Your task to perform on an android device: View the shopping cart on walmart.com. Search for "duracell triple a" on walmart.com, select the first entry, and add it to the cart. Image 0: 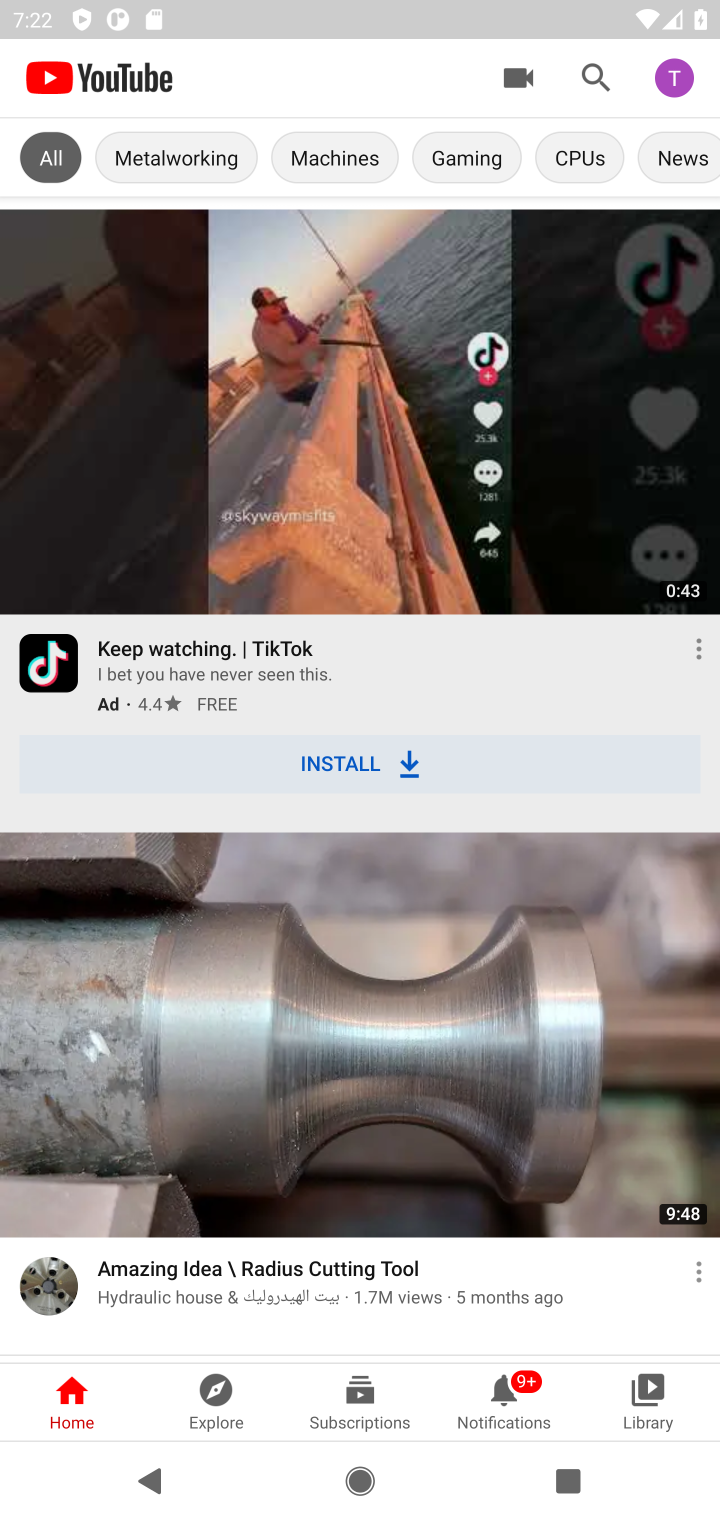
Step 0: press home button
Your task to perform on an android device: View the shopping cart on walmart.com. Search for "duracell triple a" on walmart.com, select the first entry, and add it to the cart. Image 1: 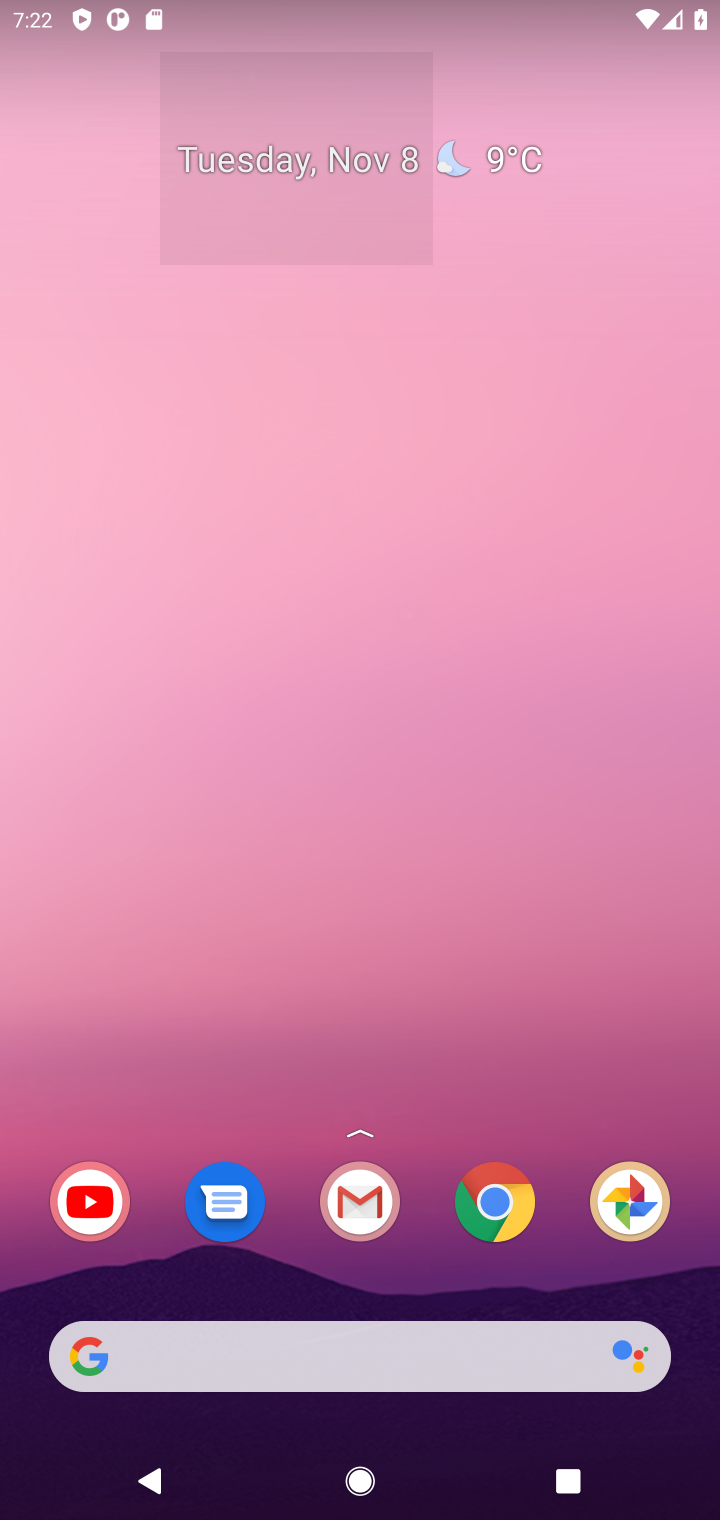
Step 1: click (249, 1352)
Your task to perform on an android device: View the shopping cart on walmart.com. Search for "duracell triple a" on walmart.com, select the first entry, and add it to the cart. Image 2: 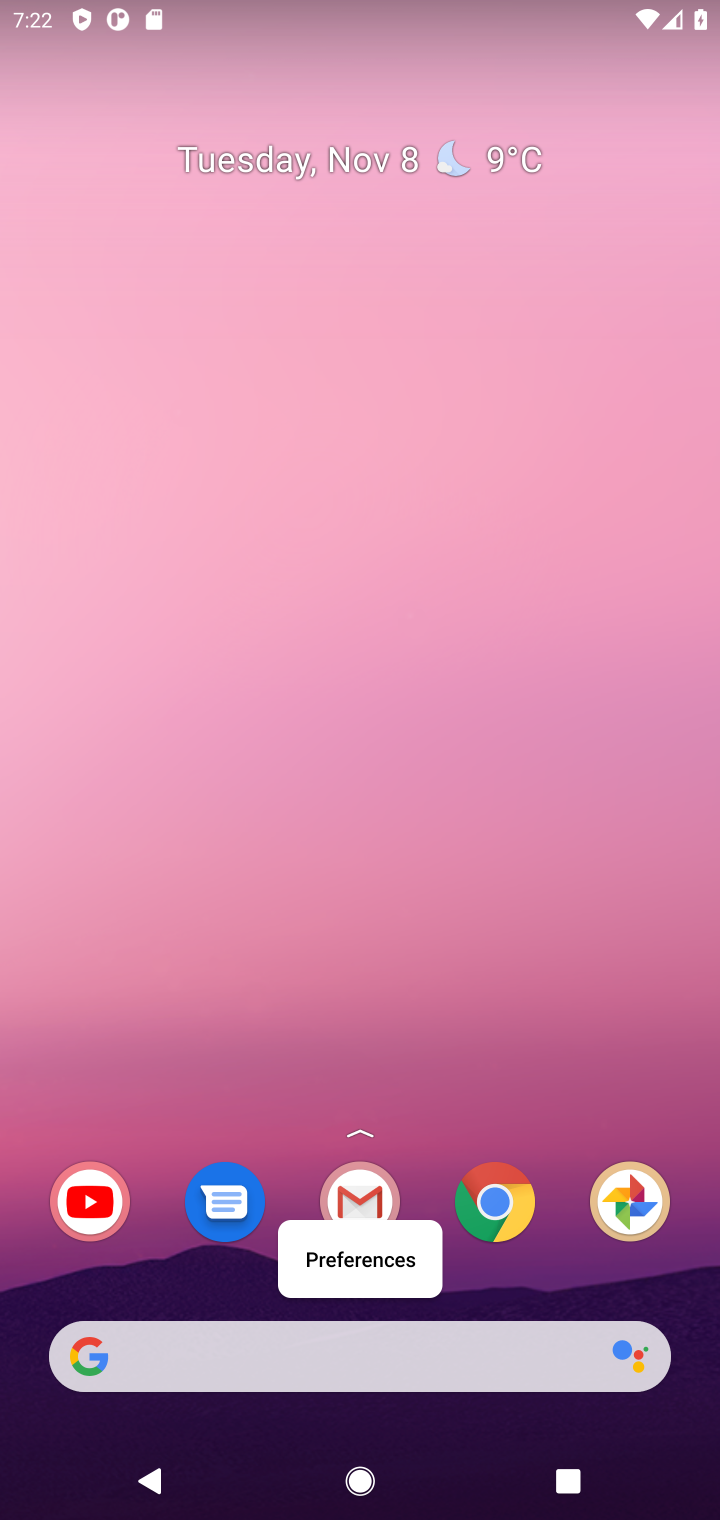
Step 2: click (310, 1368)
Your task to perform on an android device: View the shopping cart on walmart.com. Search for "duracell triple a" on walmart.com, select the first entry, and add it to the cart. Image 3: 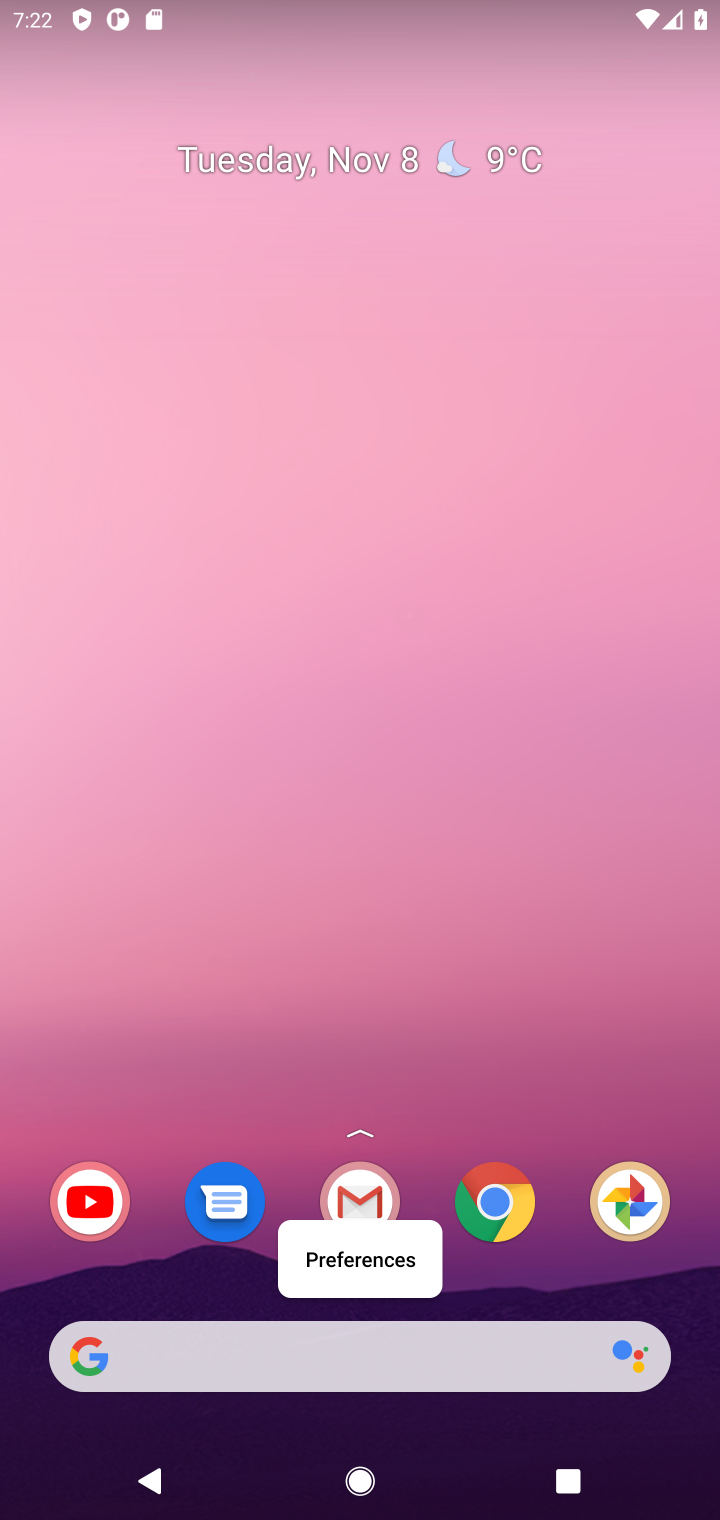
Step 3: click (310, 1368)
Your task to perform on an android device: View the shopping cart on walmart.com. Search for "duracell triple a" on walmart.com, select the first entry, and add it to the cart. Image 4: 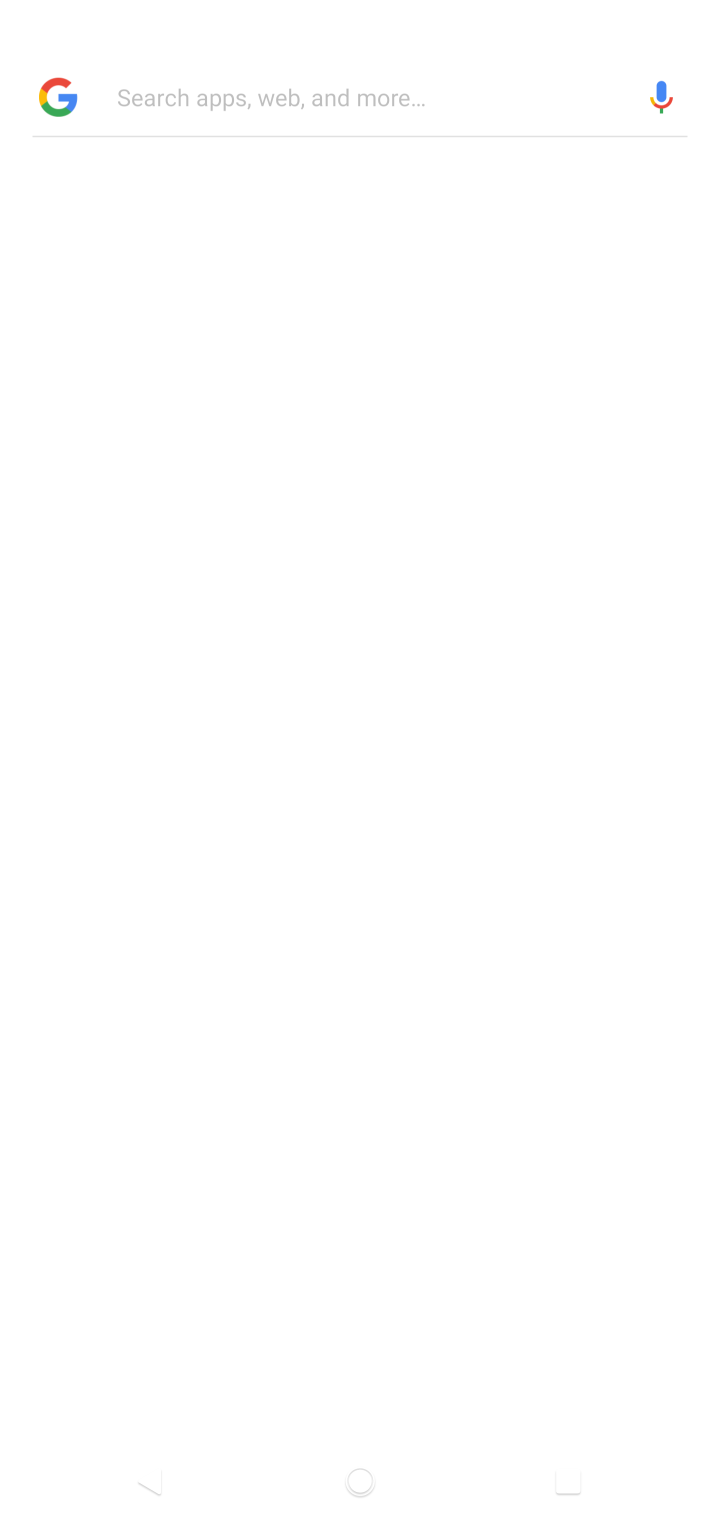
Step 4: click (310, 1368)
Your task to perform on an android device: View the shopping cart on walmart.com. Search for "duracell triple a" on walmart.com, select the first entry, and add it to the cart. Image 5: 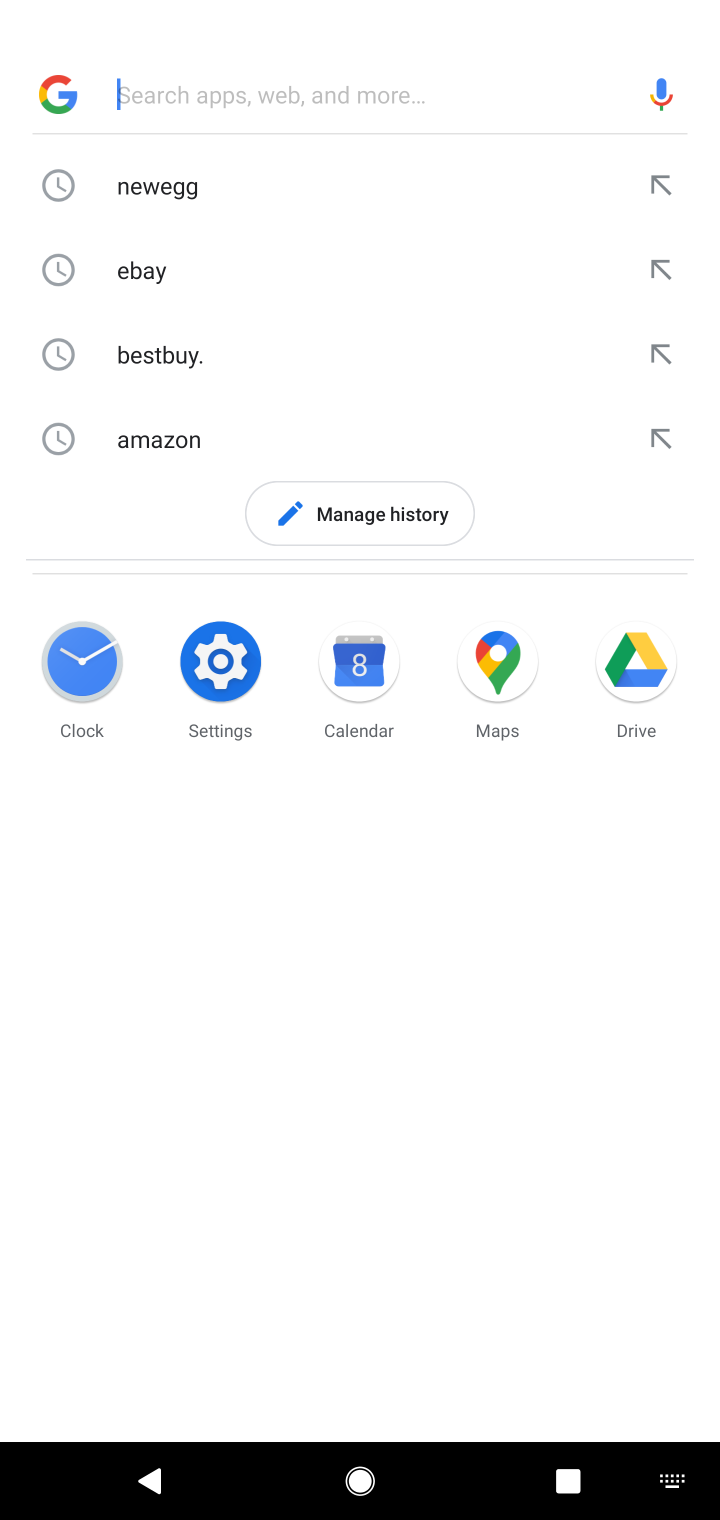
Step 5: type "walmart.com"
Your task to perform on an android device: View the shopping cart on walmart.com. Search for "duracell triple a" on walmart.com, select the first entry, and add it to the cart. Image 6: 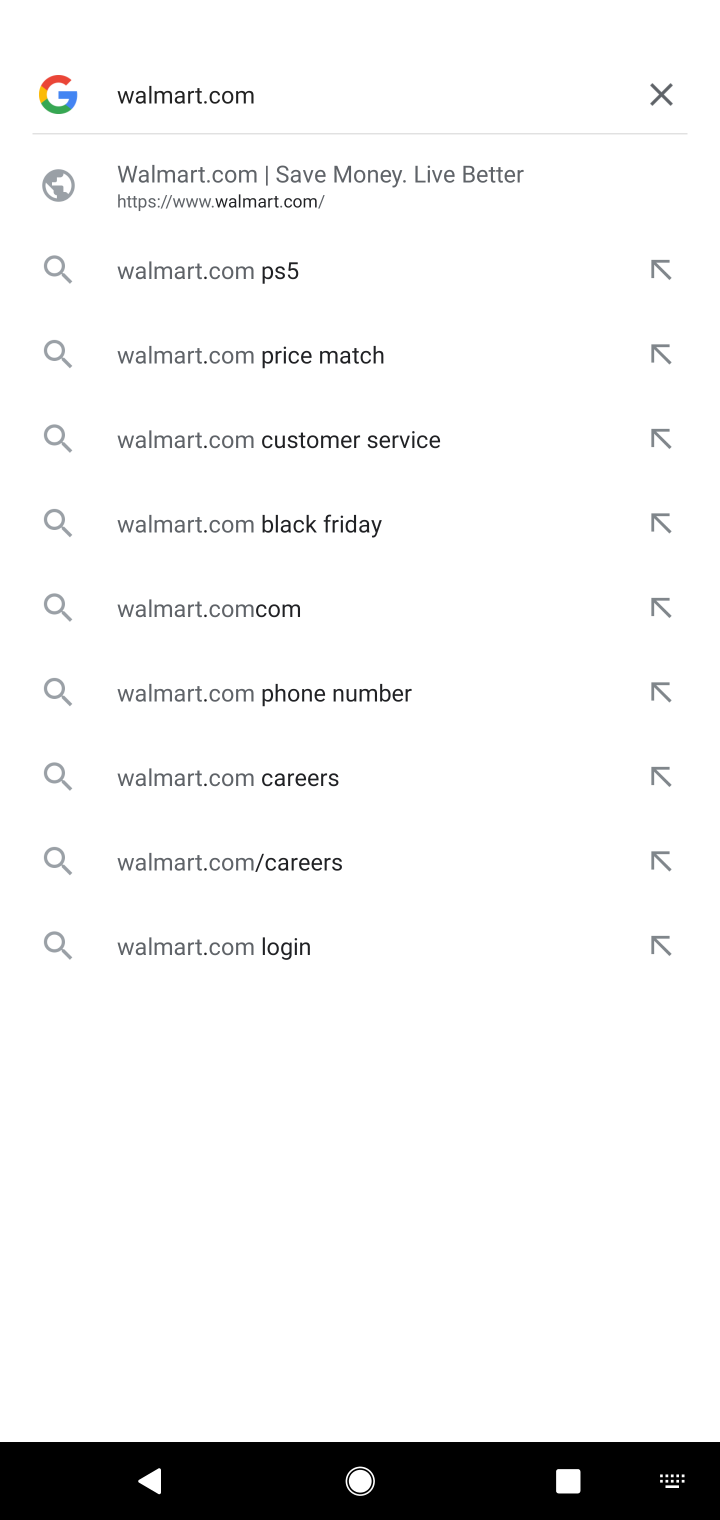
Step 6: type ""
Your task to perform on an android device: View the shopping cart on walmart.com. Search for "duracell triple a" on walmart.com, select the first entry, and add it to the cart. Image 7: 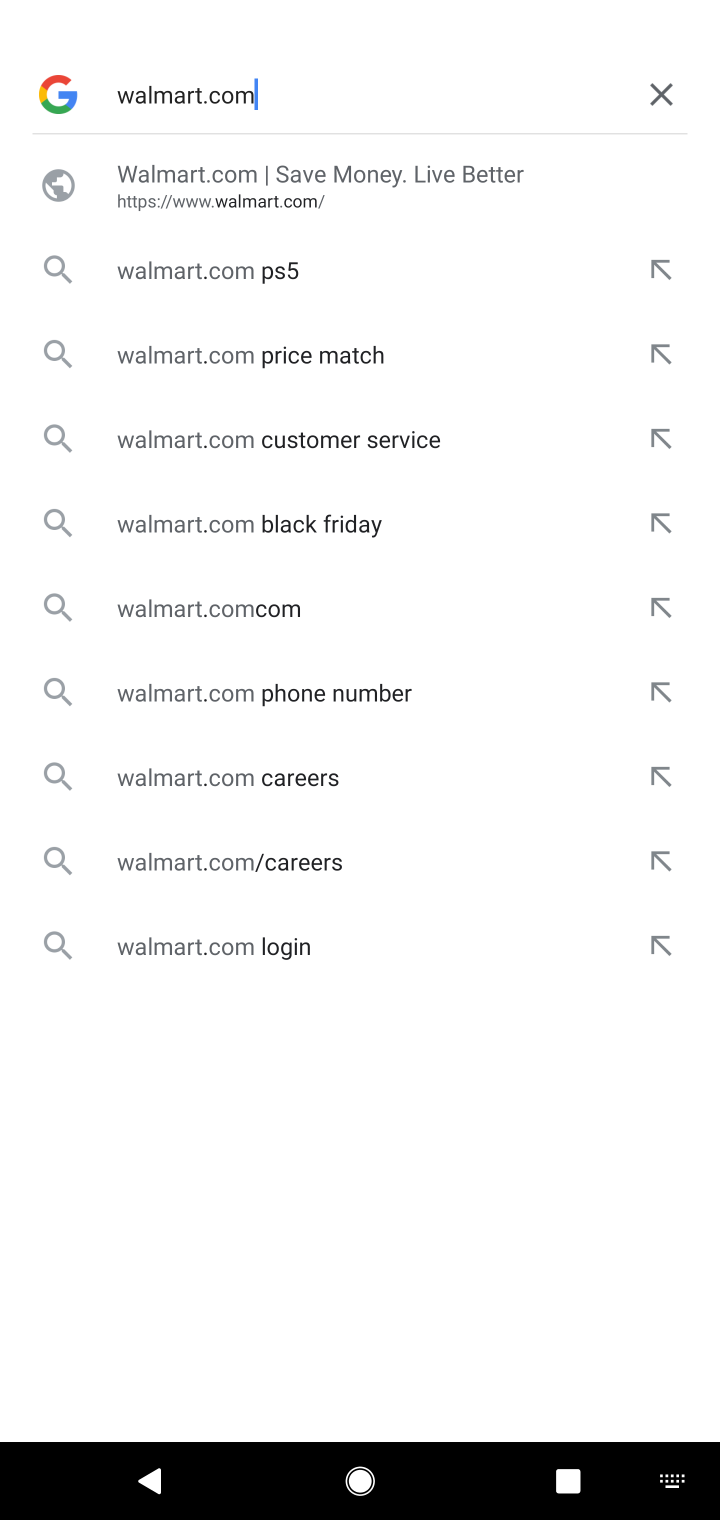
Step 7: press enter
Your task to perform on an android device: View the shopping cart on walmart.com. Search for "duracell triple a" on walmart.com, select the first entry, and add it to the cart. Image 8: 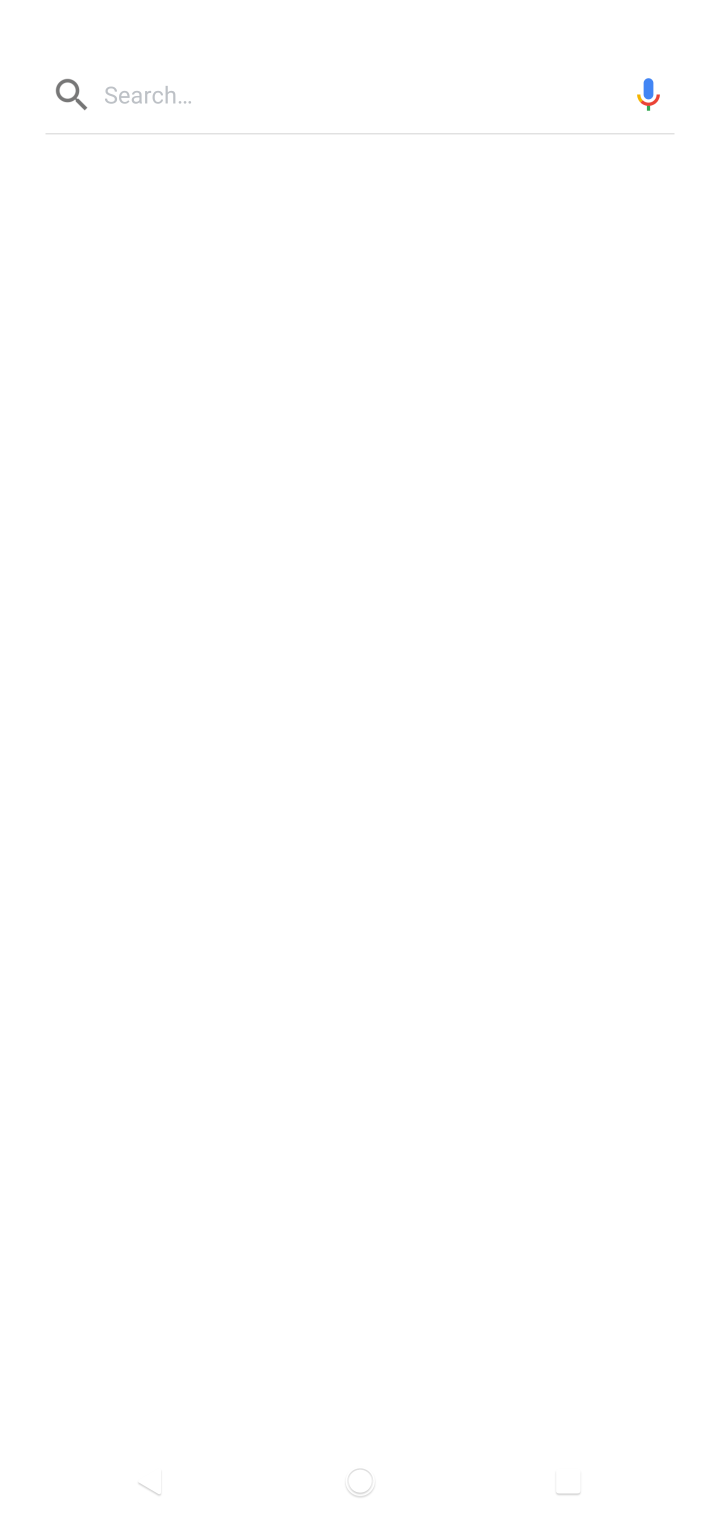
Step 8: press enter
Your task to perform on an android device: View the shopping cart on walmart.com. Search for "duracell triple a" on walmart.com, select the first entry, and add it to the cart. Image 9: 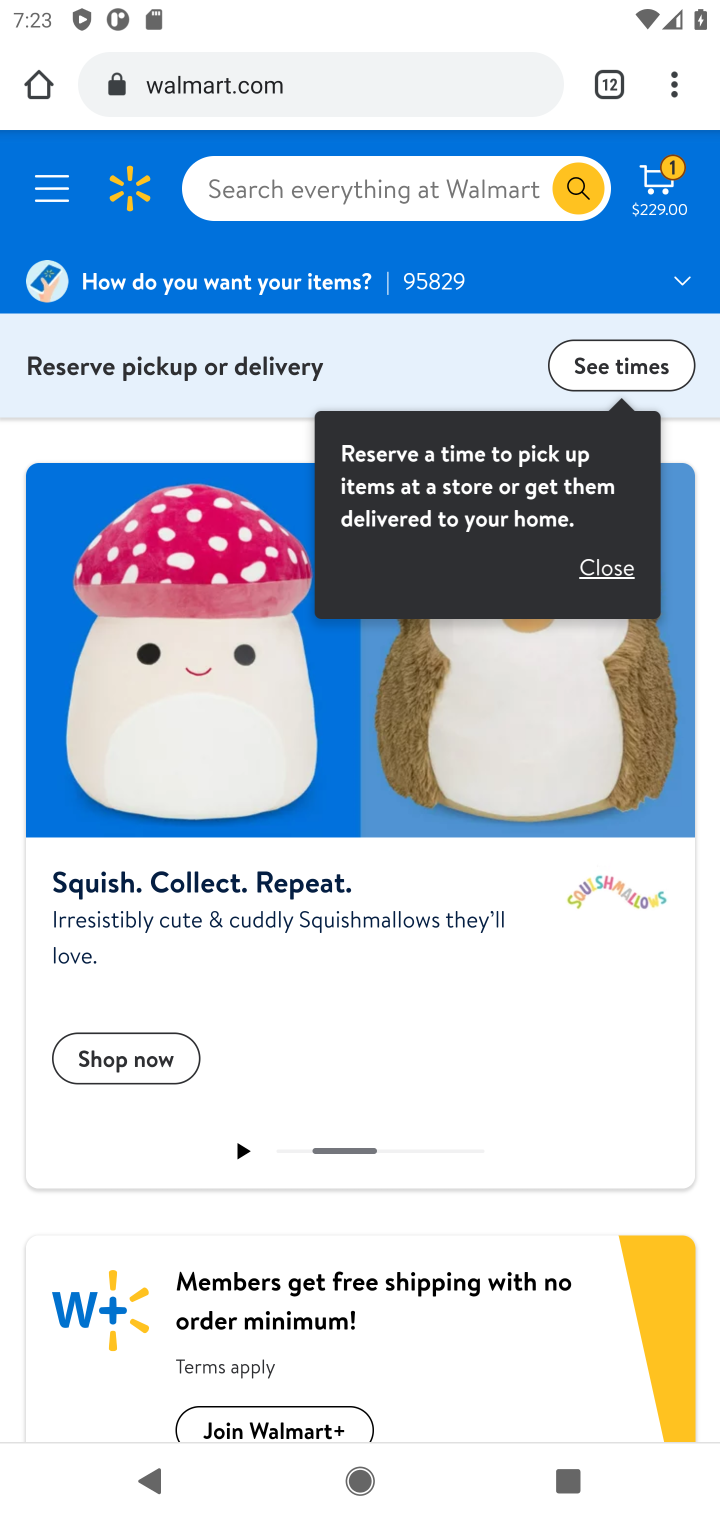
Step 9: click (324, 204)
Your task to perform on an android device: View the shopping cart on walmart.com. Search for "duracell triple a" on walmart.com, select the first entry, and add it to the cart. Image 10: 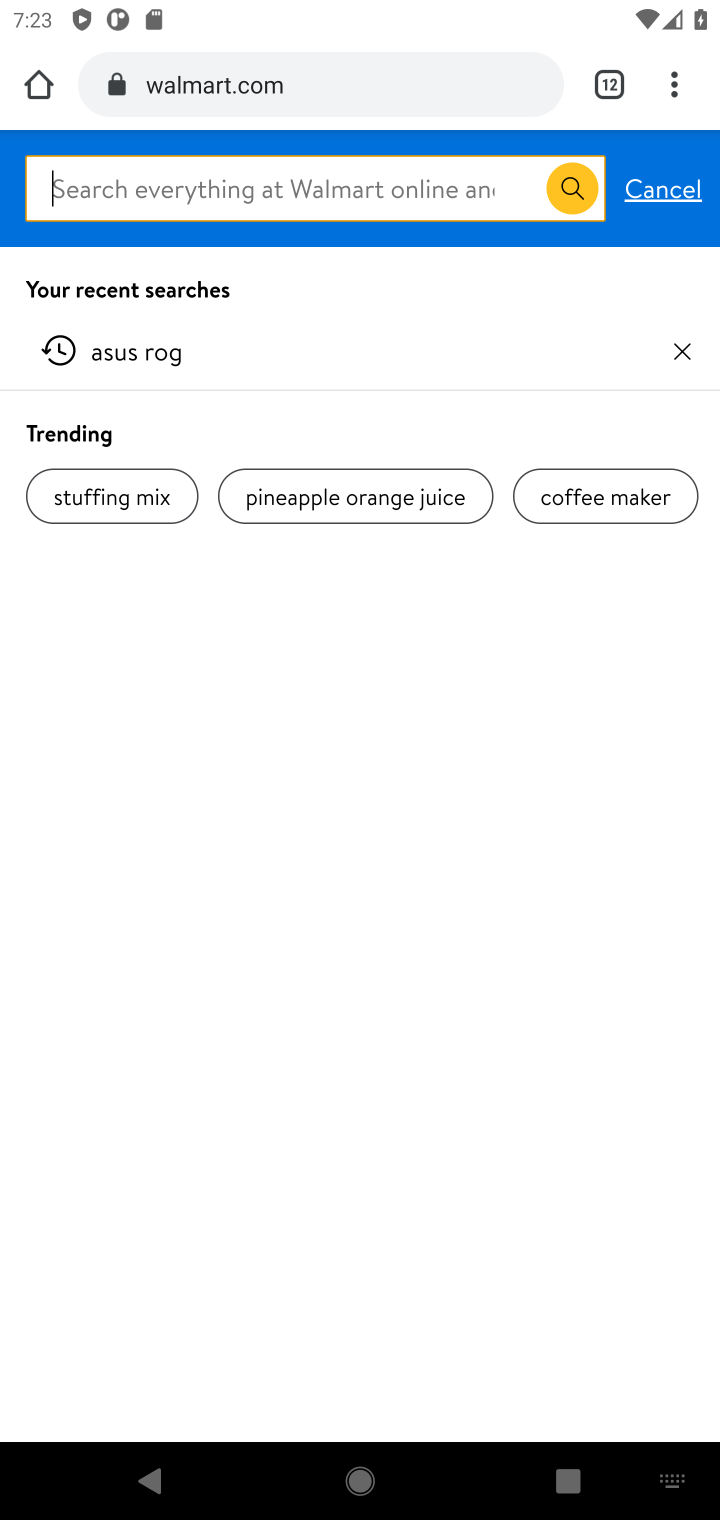
Step 10: type "duracell triple a"
Your task to perform on an android device: View the shopping cart on walmart.com. Search for "duracell triple a" on walmart.com, select the first entry, and add it to the cart. Image 11: 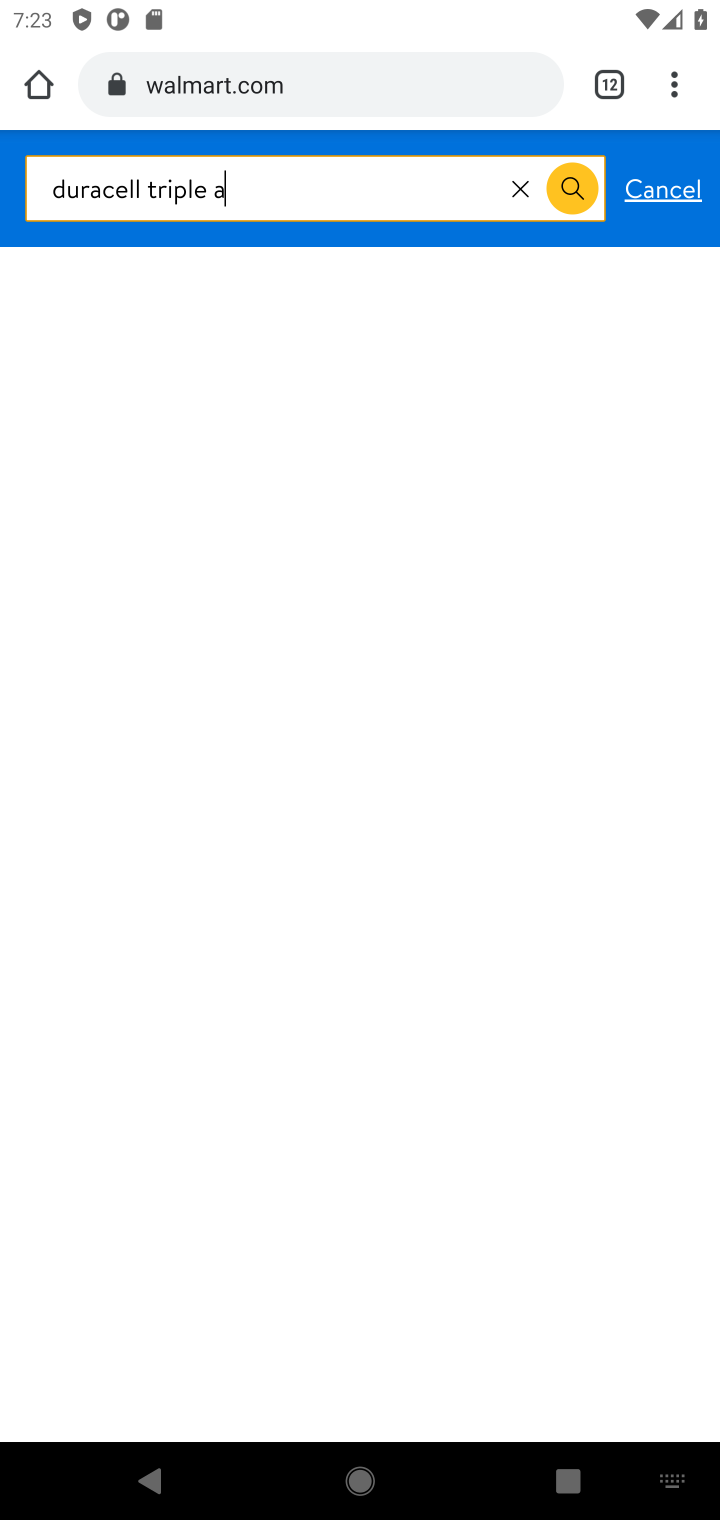
Step 11: type ""
Your task to perform on an android device: View the shopping cart on walmart.com. Search for "duracell triple a" on walmart.com, select the first entry, and add it to the cart. Image 12: 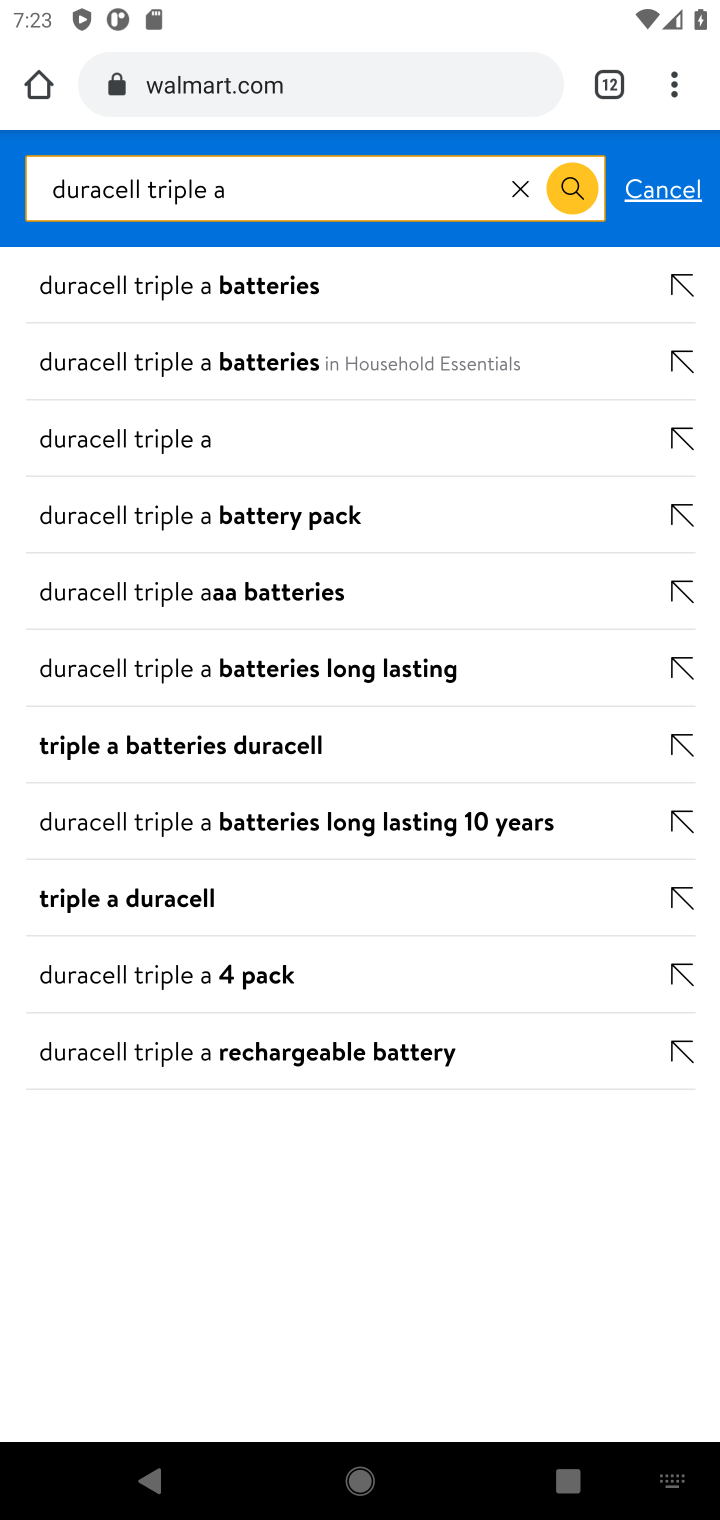
Step 12: press enter
Your task to perform on an android device: View the shopping cart on walmart.com. Search for "duracell triple a" on walmart.com, select the first entry, and add it to the cart. Image 13: 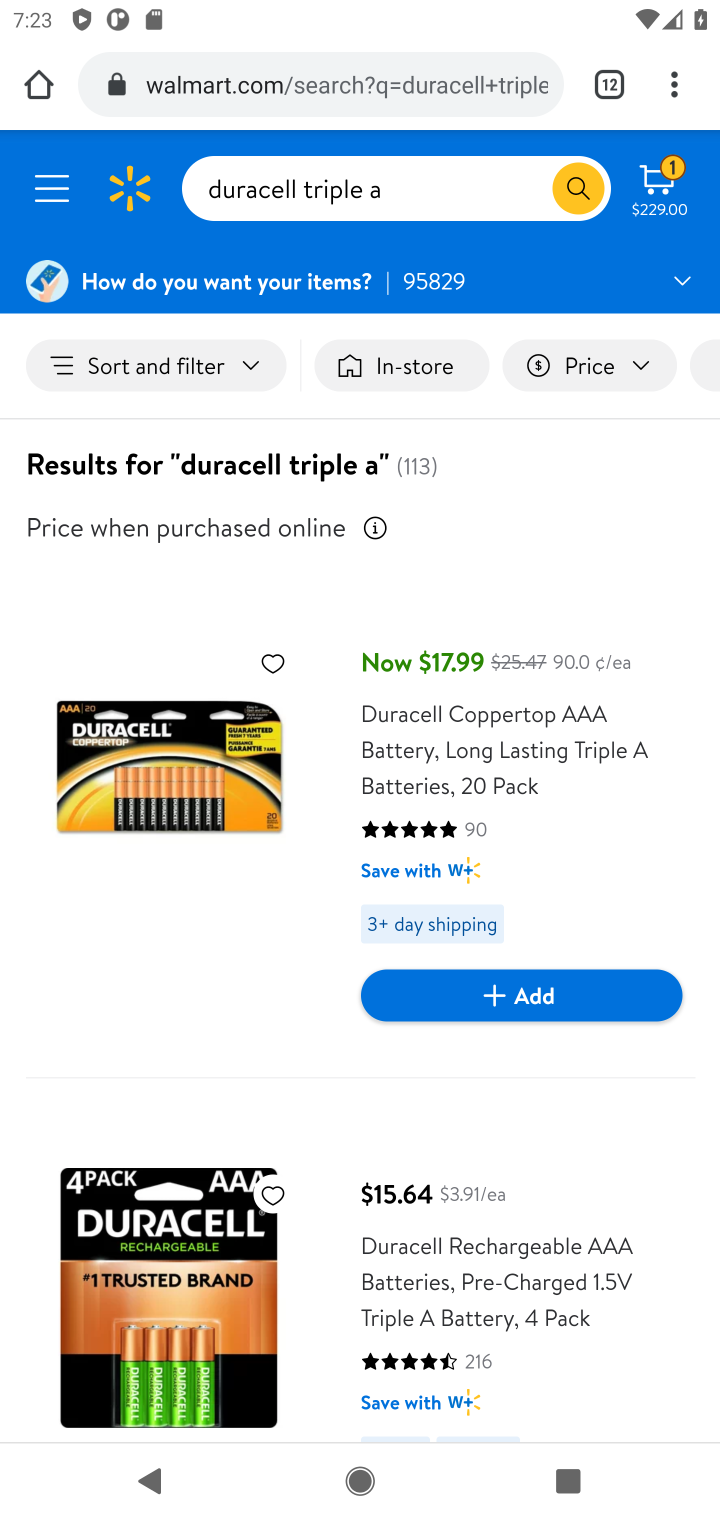
Step 13: click (525, 1001)
Your task to perform on an android device: View the shopping cart on walmart.com. Search for "duracell triple a" on walmart.com, select the first entry, and add it to the cart. Image 14: 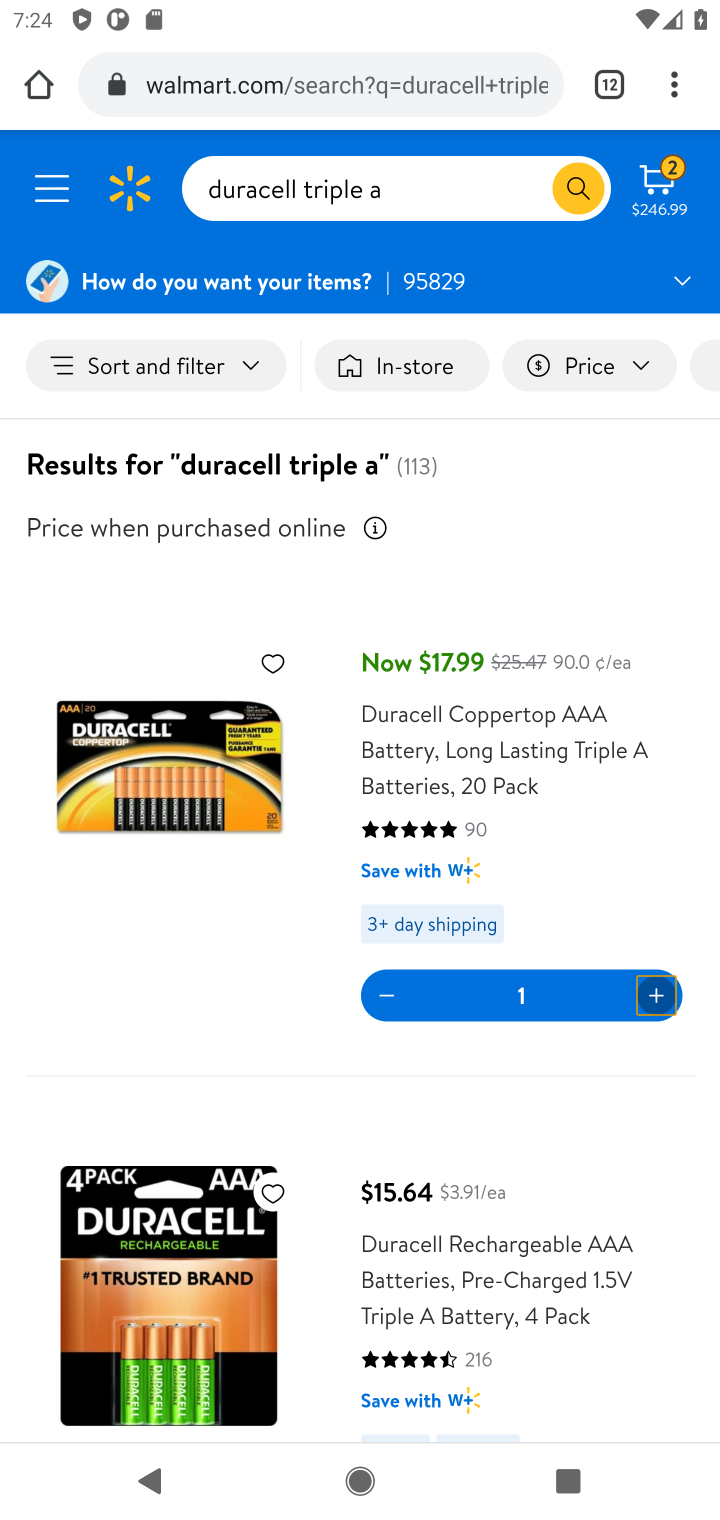
Step 14: task complete